Your task to perform on an android device: empty trash in google photos Image 0: 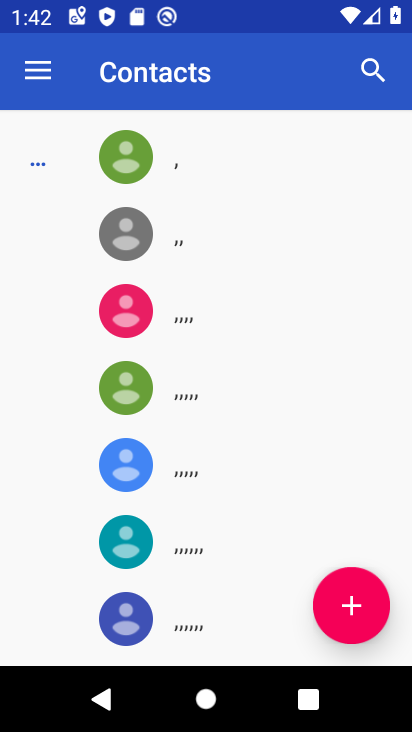
Step 0: press home button
Your task to perform on an android device: empty trash in google photos Image 1: 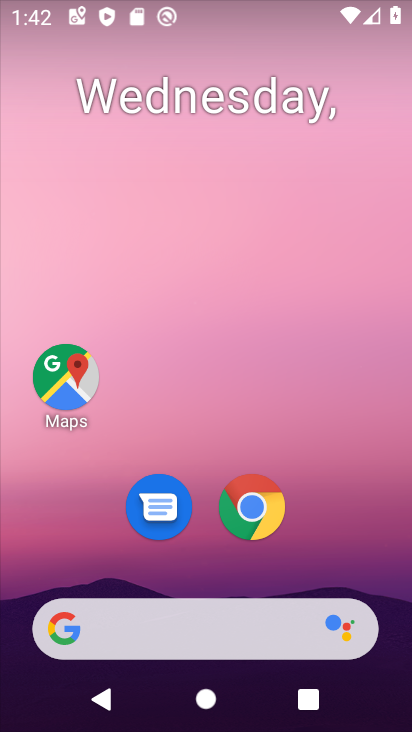
Step 1: drag from (362, 553) to (367, 202)
Your task to perform on an android device: empty trash in google photos Image 2: 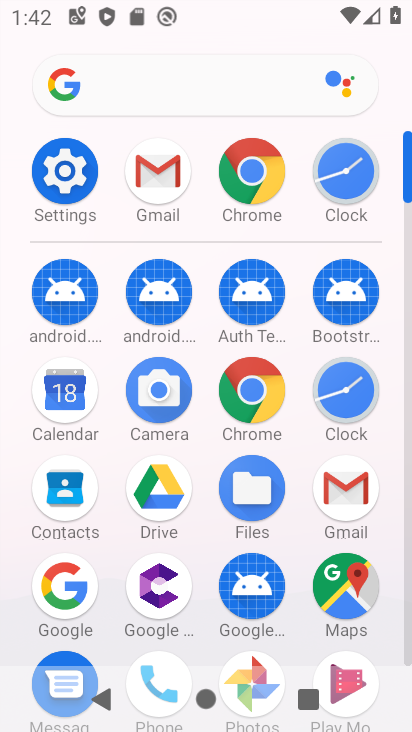
Step 2: drag from (264, 542) to (294, 217)
Your task to perform on an android device: empty trash in google photos Image 3: 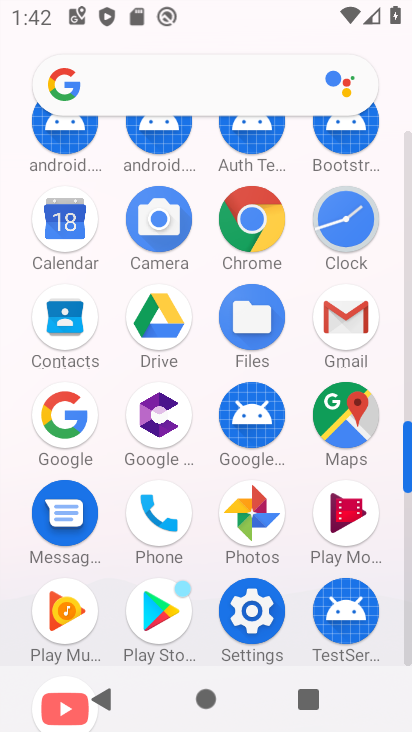
Step 3: click (278, 523)
Your task to perform on an android device: empty trash in google photos Image 4: 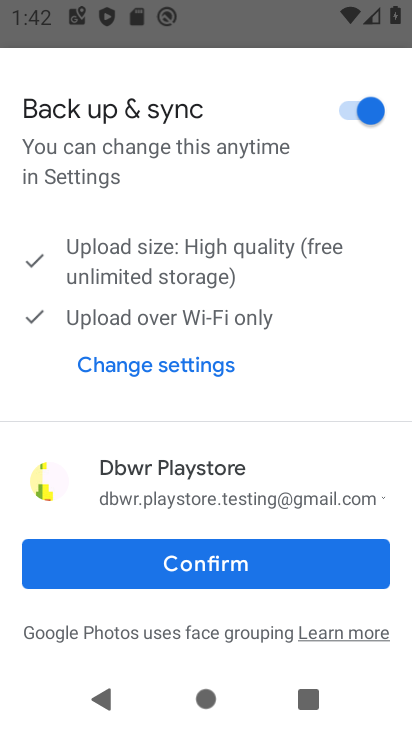
Step 4: click (255, 555)
Your task to perform on an android device: empty trash in google photos Image 5: 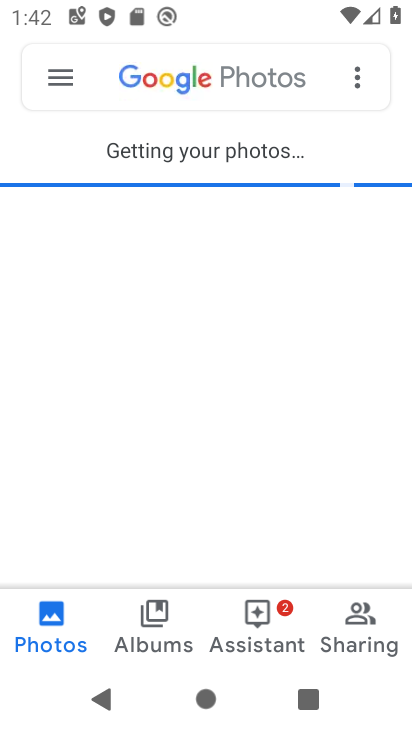
Step 5: click (51, 76)
Your task to perform on an android device: empty trash in google photos Image 6: 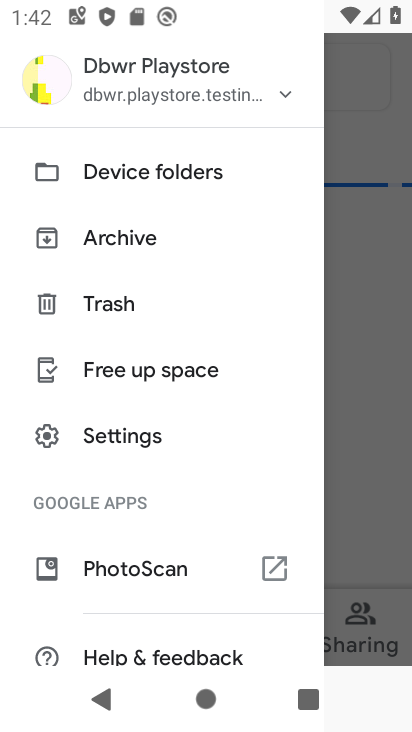
Step 6: click (100, 315)
Your task to perform on an android device: empty trash in google photos Image 7: 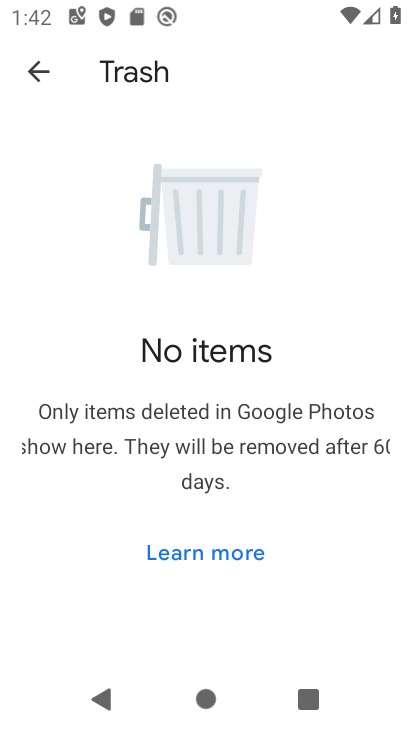
Step 7: task complete